Your task to perform on an android device: Search for pizza restaurants on Maps Image 0: 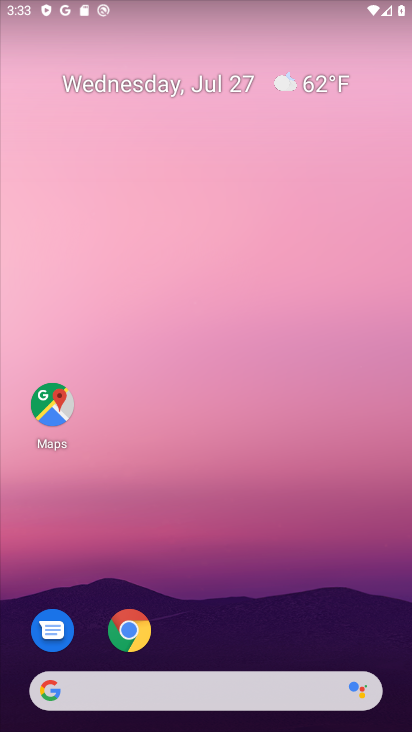
Step 0: click (61, 406)
Your task to perform on an android device: Search for pizza restaurants on Maps Image 1: 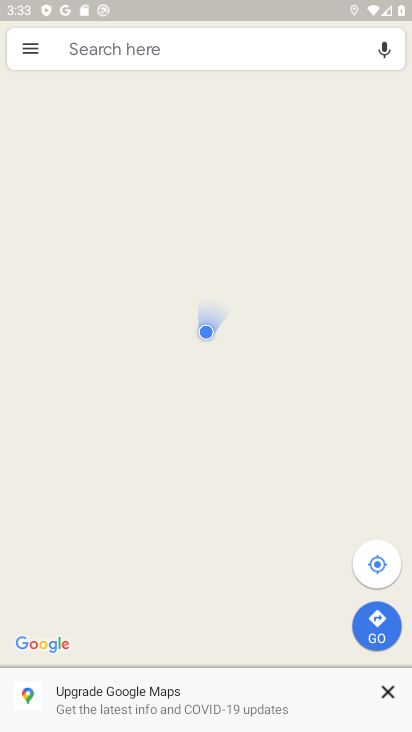
Step 1: click (100, 49)
Your task to perform on an android device: Search for pizza restaurants on Maps Image 2: 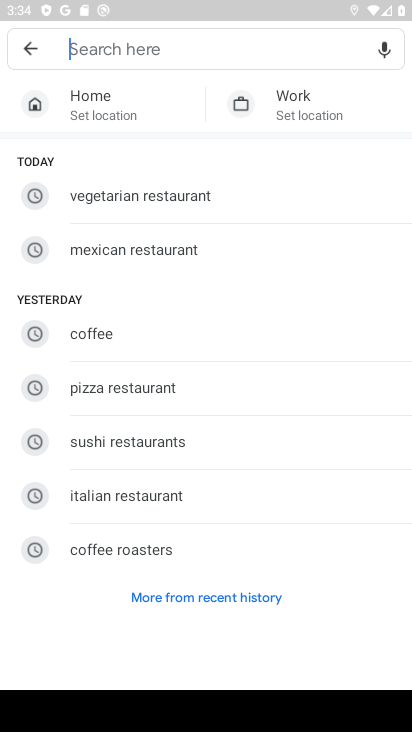
Step 2: click (134, 389)
Your task to perform on an android device: Search for pizza restaurants on Maps Image 3: 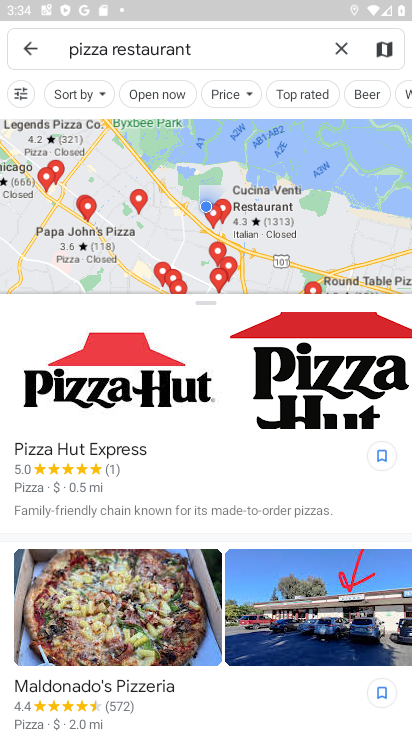
Step 3: task complete